Your task to perform on an android device: Clear the cart on bestbuy.com. Add "dell alienware" to the cart on bestbuy.com Image 0: 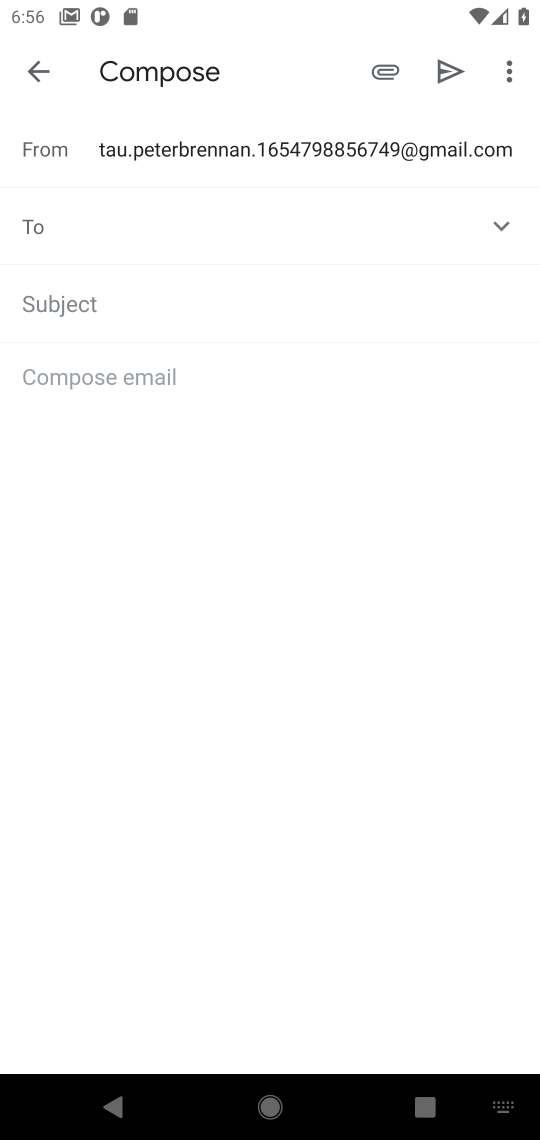
Step 0: press home button
Your task to perform on an android device: Clear the cart on bestbuy.com. Add "dell alienware" to the cart on bestbuy.com Image 1: 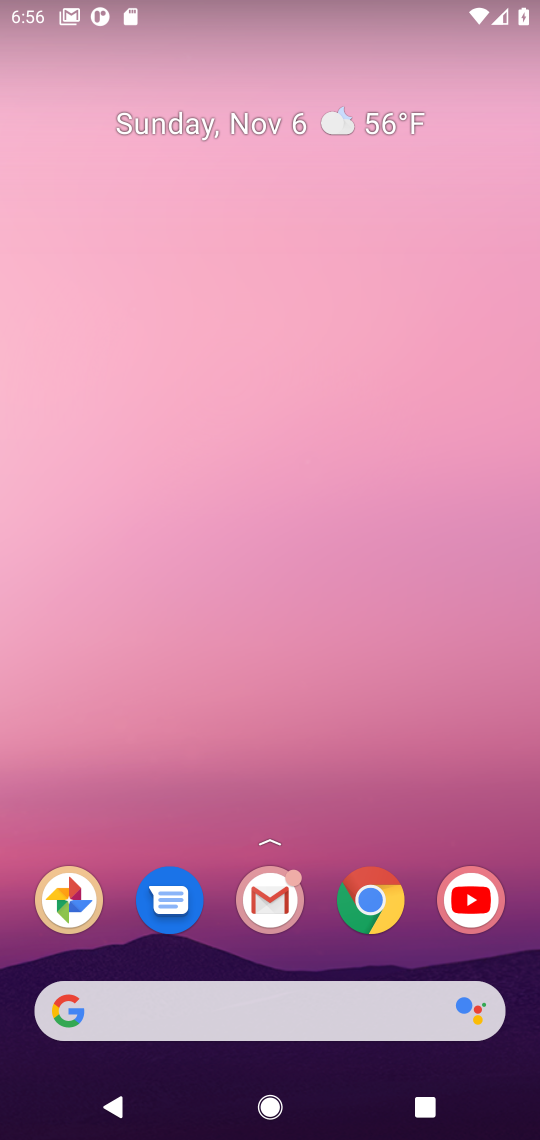
Step 1: drag from (337, 854) to (297, 195)
Your task to perform on an android device: Clear the cart on bestbuy.com. Add "dell alienware" to the cart on bestbuy.com Image 2: 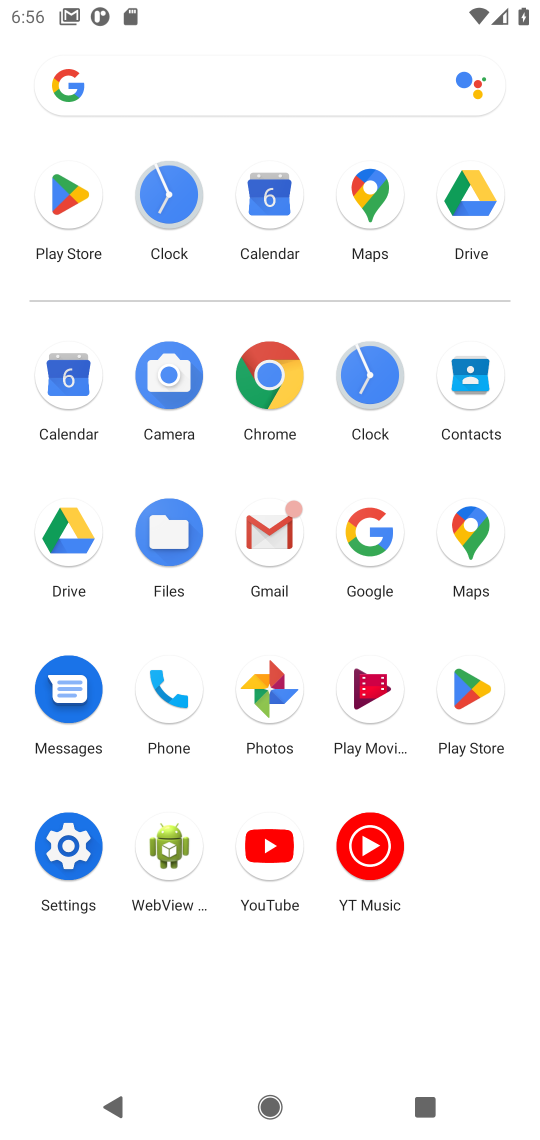
Step 2: click (275, 371)
Your task to perform on an android device: Clear the cart on bestbuy.com. Add "dell alienware" to the cart on bestbuy.com Image 3: 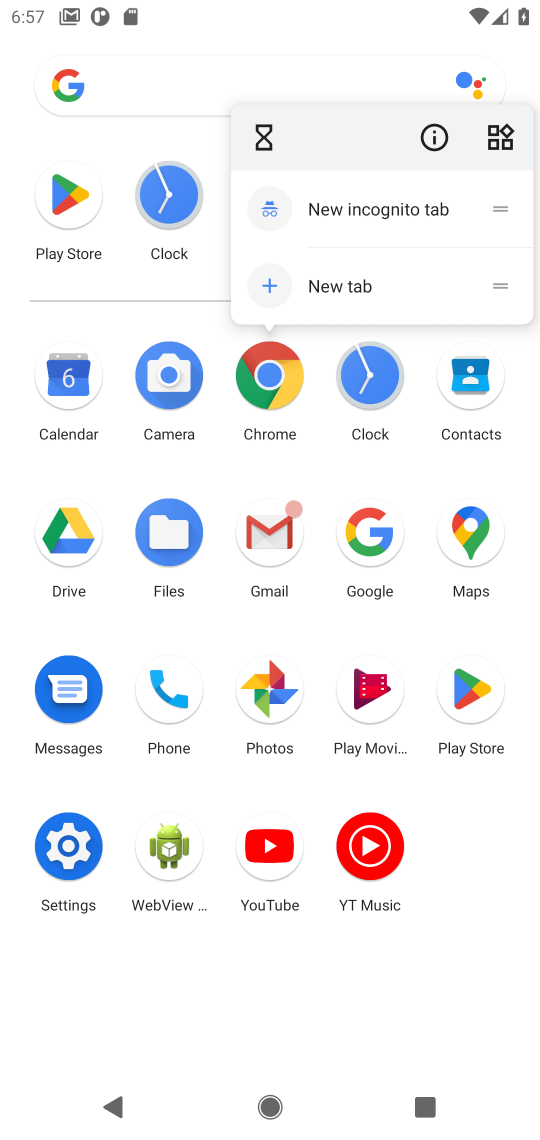
Step 3: click (268, 376)
Your task to perform on an android device: Clear the cart on bestbuy.com. Add "dell alienware" to the cart on bestbuy.com Image 4: 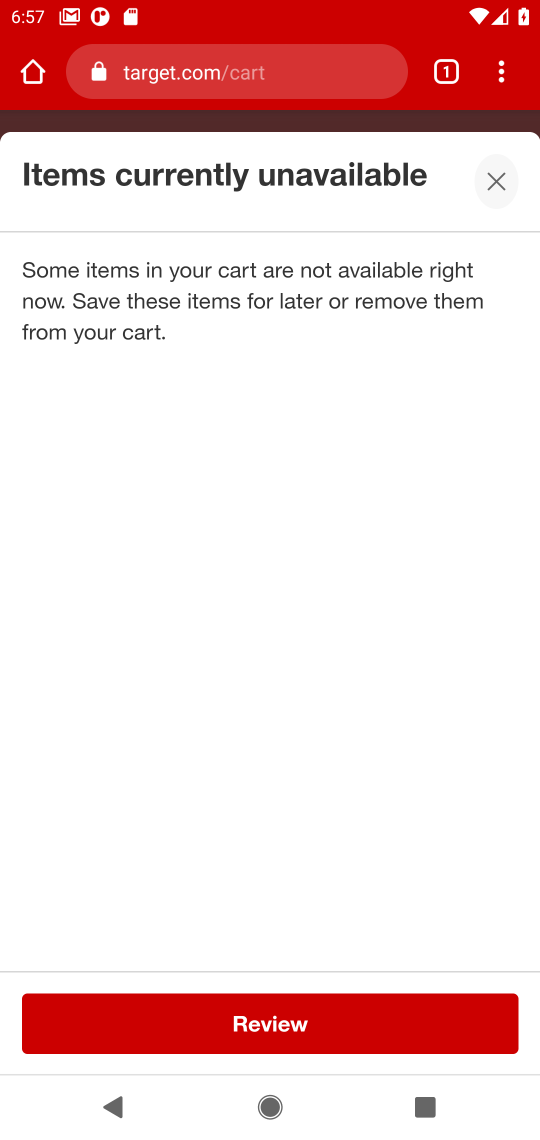
Step 4: click (298, 89)
Your task to perform on an android device: Clear the cart on bestbuy.com. Add "dell alienware" to the cart on bestbuy.com Image 5: 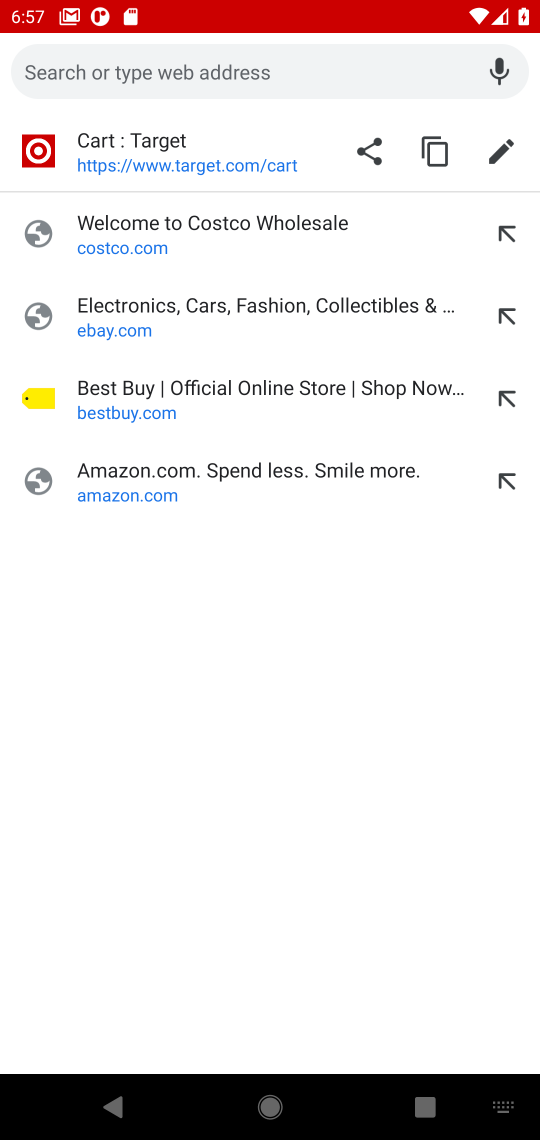
Step 5: type "bestbuy.com"
Your task to perform on an android device: Clear the cart on bestbuy.com. Add "dell alienware" to the cart on bestbuy.com Image 6: 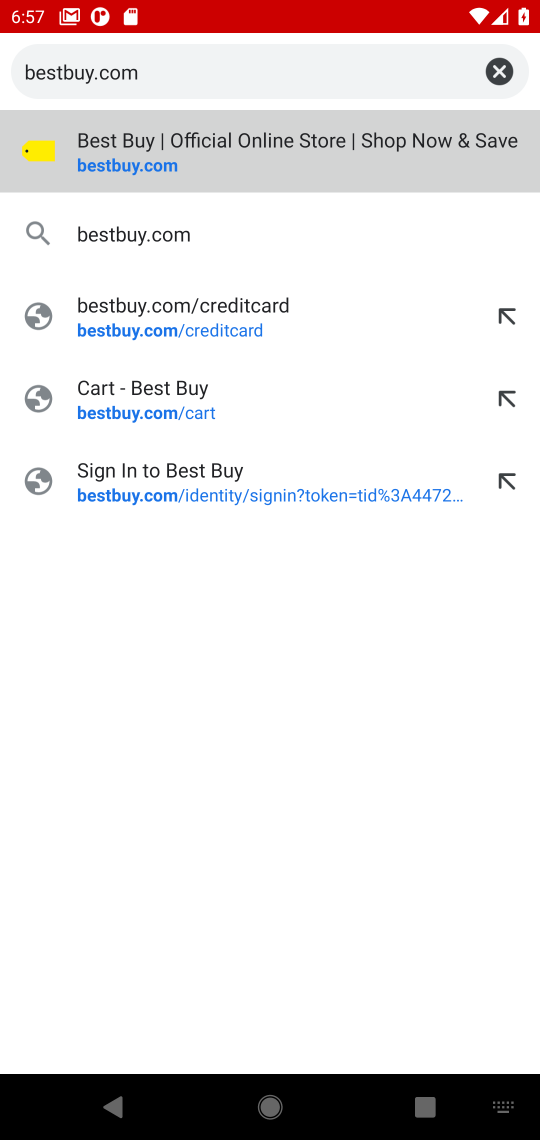
Step 6: press enter
Your task to perform on an android device: Clear the cart on bestbuy.com. Add "dell alienware" to the cart on bestbuy.com Image 7: 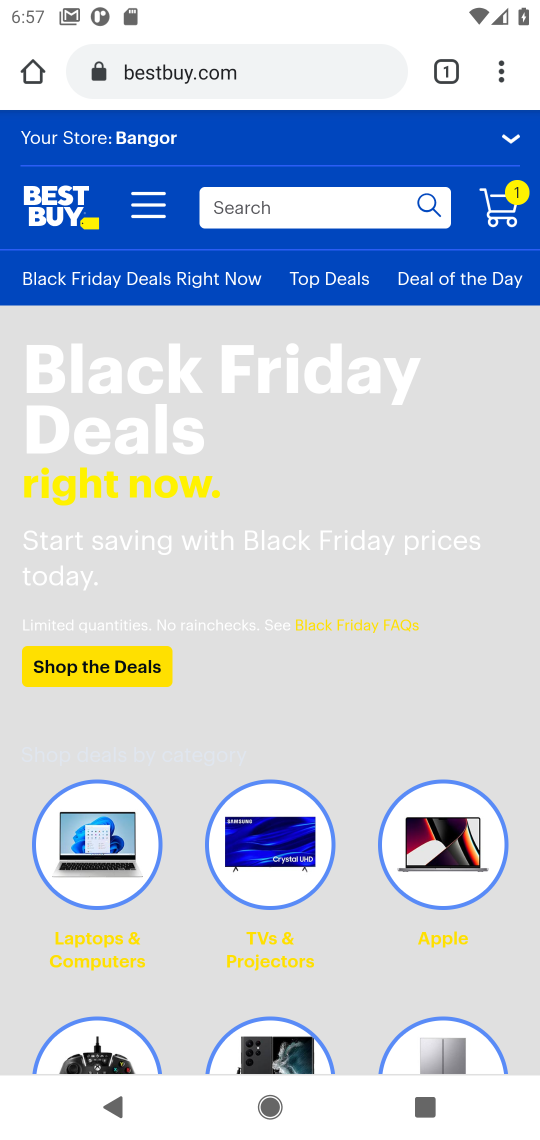
Step 7: click (497, 207)
Your task to perform on an android device: Clear the cart on bestbuy.com. Add "dell alienware" to the cart on bestbuy.com Image 8: 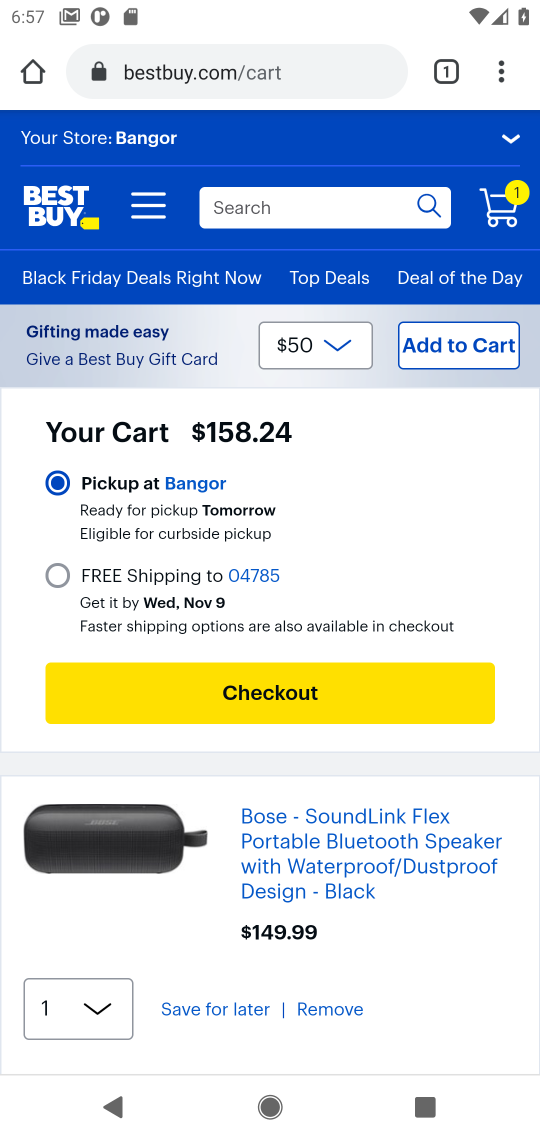
Step 8: click (311, 1008)
Your task to perform on an android device: Clear the cart on bestbuy.com. Add "dell alienware" to the cart on bestbuy.com Image 9: 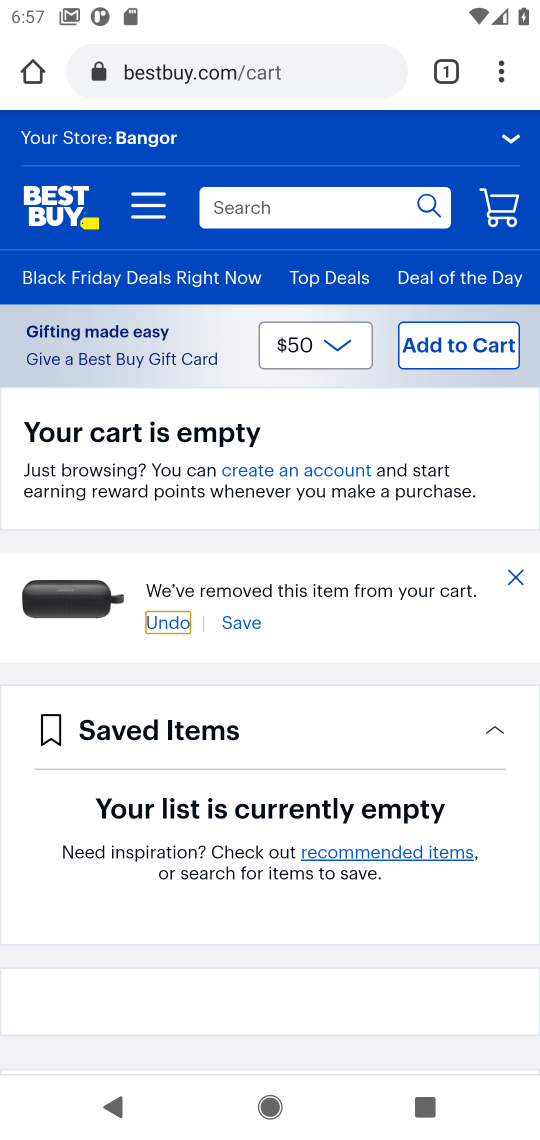
Step 9: click (366, 208)
Your task to perform on an android device: Clear the cart on bestbuy.com. Add "dell alienware" to the cart on bestbuy.com Image 10: 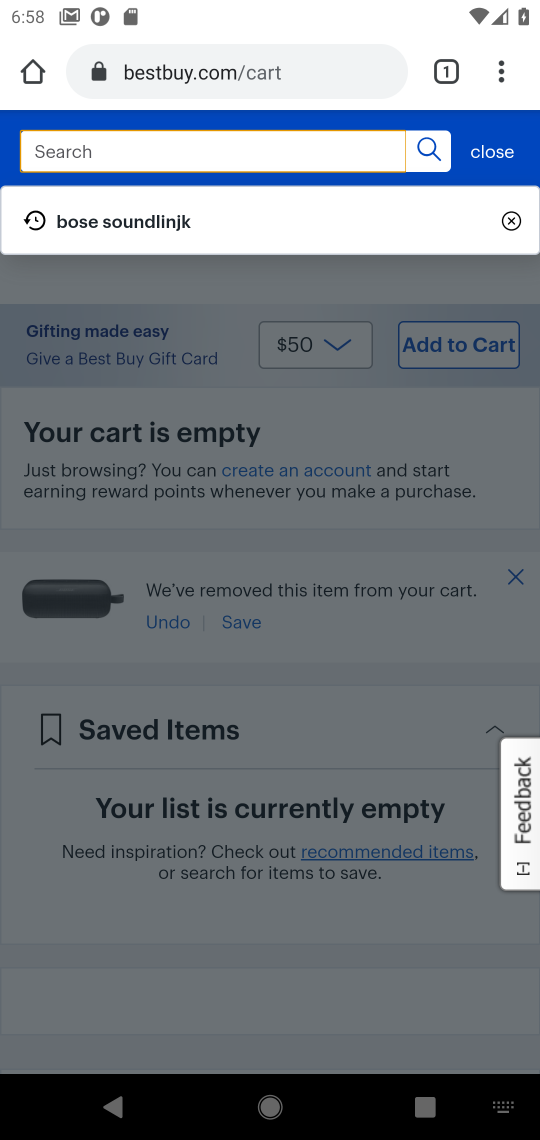
Step 10: type "dell alienware"
Your task to perform on an android device: Clear the cart on bestbuy.com. Add "dell alienware" to the cart on bestbuy.com Image 11: 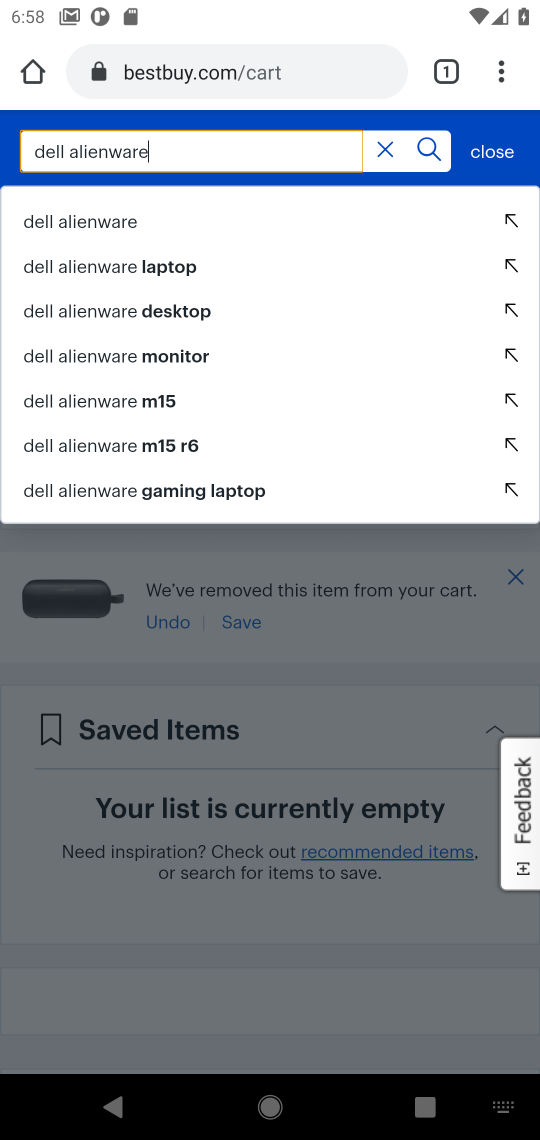
Step 11: press enter
Your task to perform on an android device: Clear the cart on bestbuy.com. Add "dell alienware" to the cart on bestbuy.com Image 12: 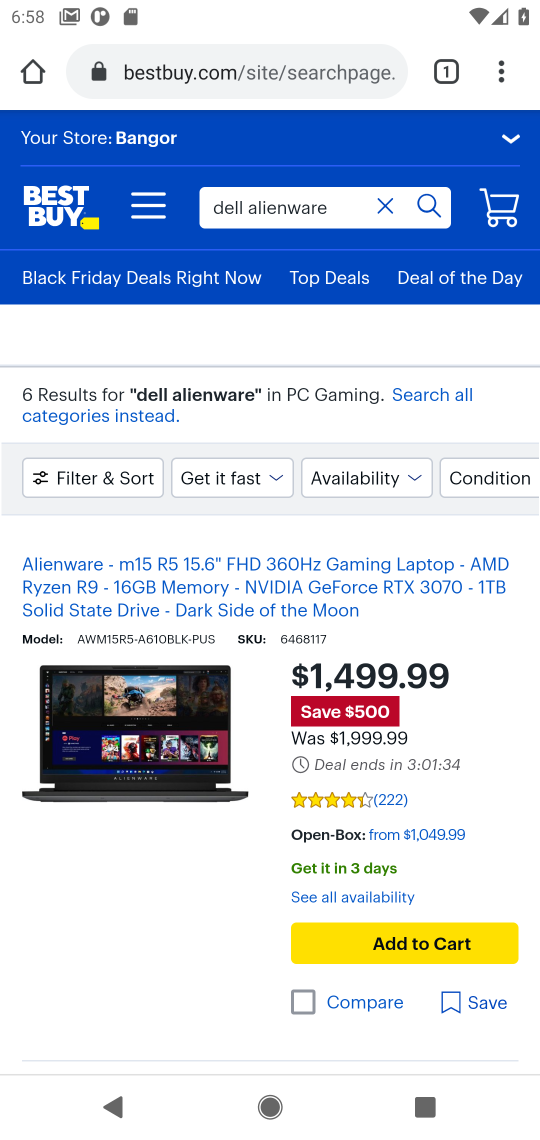
Step 12: drag from (183, 890) to (240, 487)
Your task to perform on an android device: Clear the cart on bestbuy.com. Add "dell alienware" to the cart on bestbuy.com Image 13: 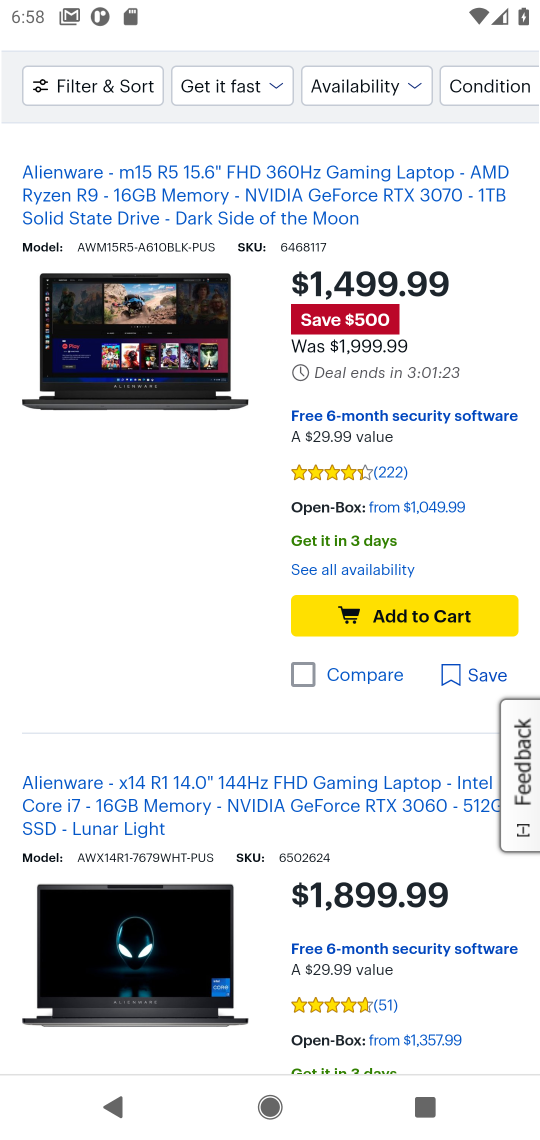
Step 13: click (415, 620)
Your task to perform on an android device: Clear the cart on bestbuy.com. Add "dell alienware" to the cart on bestbuy.com Image 14: 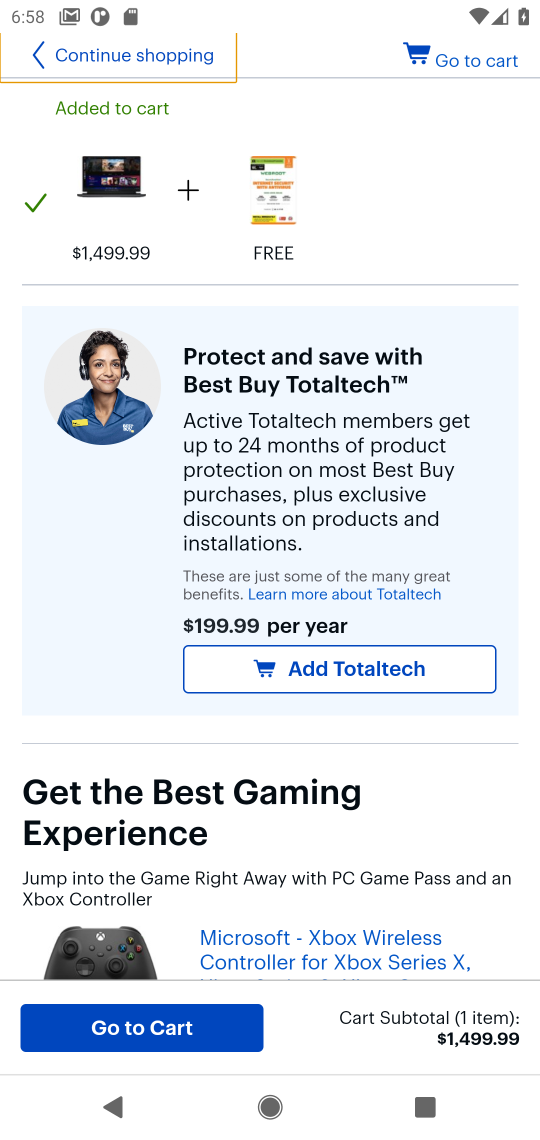
Step 14: task complete